Your task to perform on an android device: Go to battery settings Image 0: 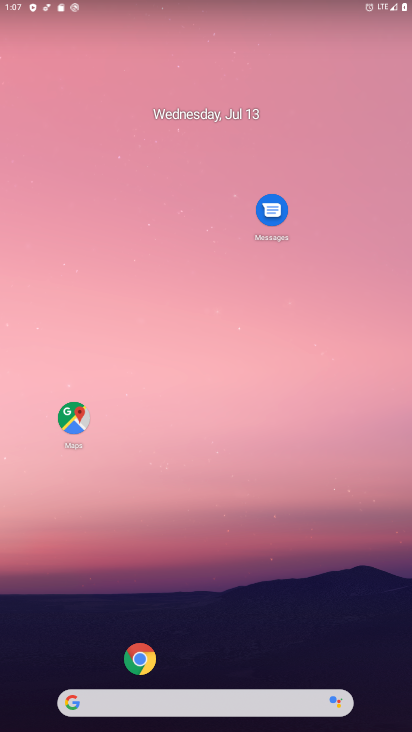
Step 0: drag from (30, 692) to (239, 282)
Your task to perform on an android device: Go to battery settings Image 1: 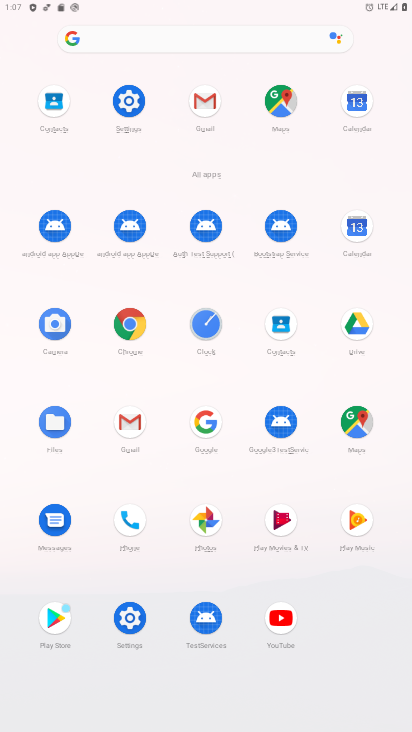
Step 1: click (134, 609)
Your task to perform on an android device: Go to battery settings Image 2: 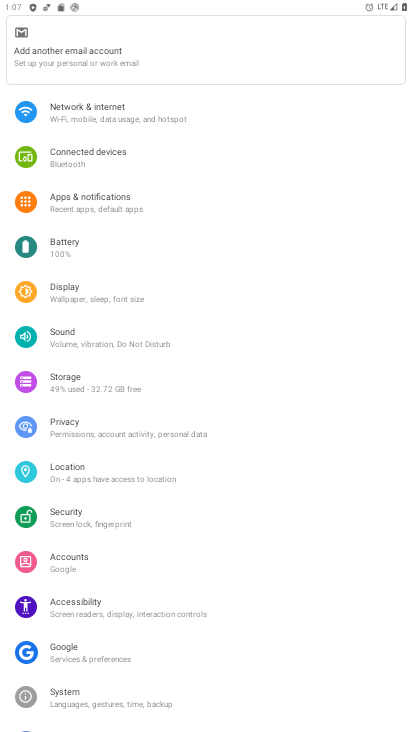
Step 2: click (102, 246)
Your task to perform on an android device: Go to battery settings Image 3: 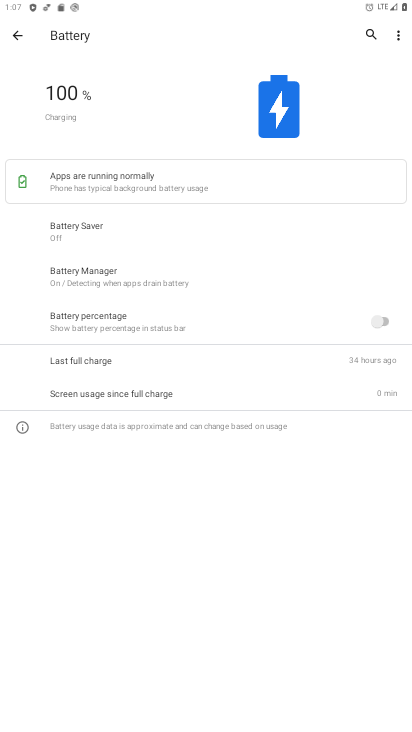
Step 3: task complete